Your task to perform on an android device: Open the calendar and show me this week's events? Image 0: 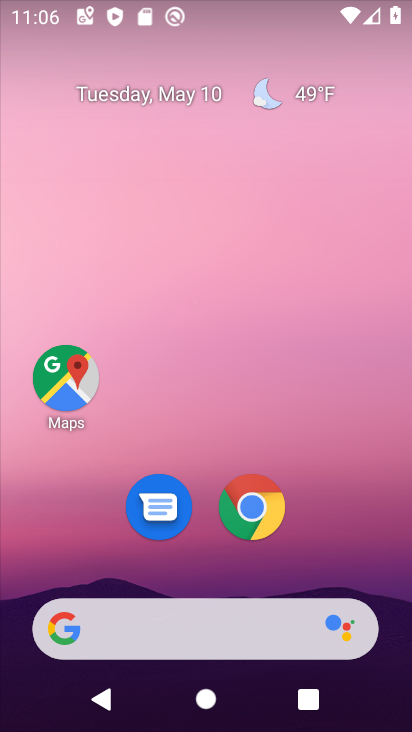
Step 0: drag from (202, 556) to (210, 120)
Your task to perform on an android device: Open the calendar and show me this week's events? Image 1: 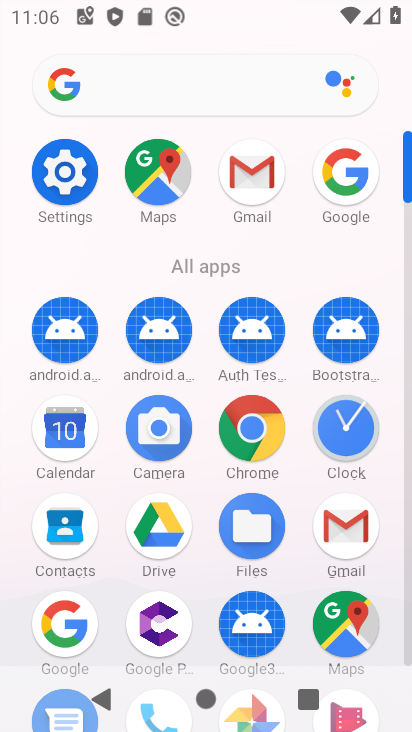
Step 1: click (63, 431)
Your task to perform on an android device: Open the calendar and show me this week's events? Image 2: 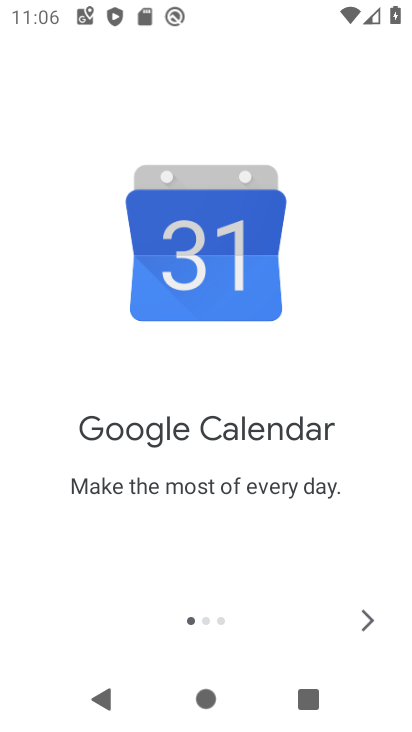
Step 2: click (365, 616)
Your task to perform on an android device: Open the calendar and show me this week's events? Image 3: 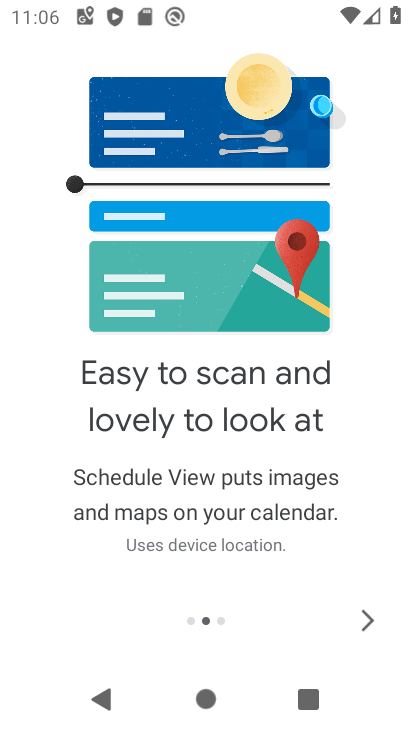
Step 3: click (365, 616)
Your task to perform on an android device: Open the calendar and show me this week's events? Image 4: 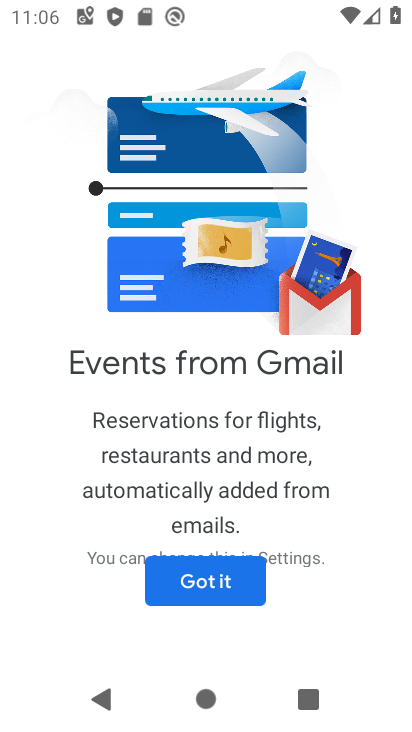
Step 4: click (195, 583)
Your task to perform on an android device: Open the calendar and show me this week's events? Image 5: 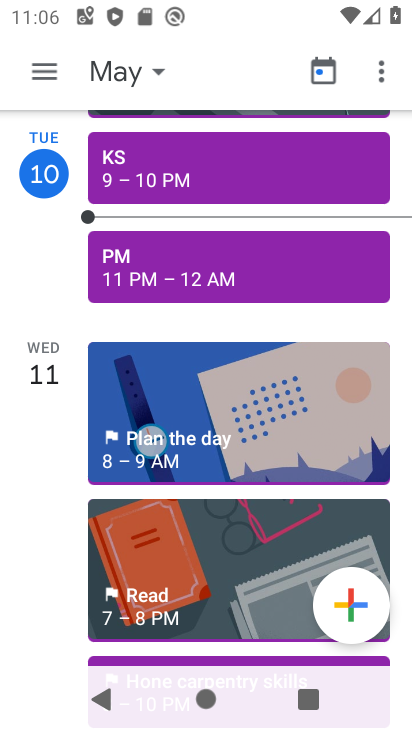
Step 5: click (144, 69)
Your task to perform on an android device: Open the calendar and show me this week's events? Image 6: 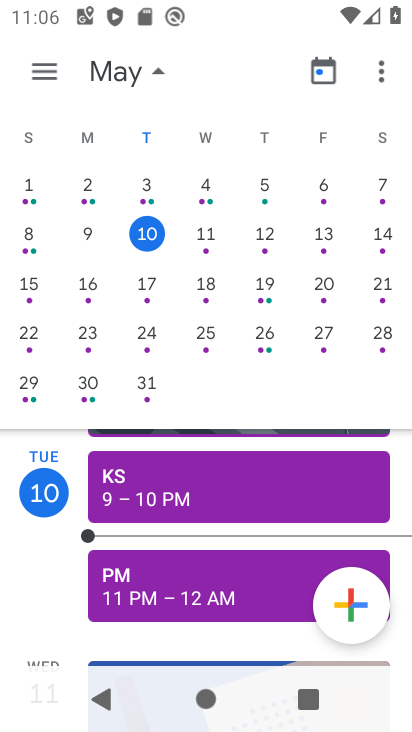
Step 6: click (270, 235)
Your task to perform on an android device: Open the calendar and show me this week's events? Image 7: 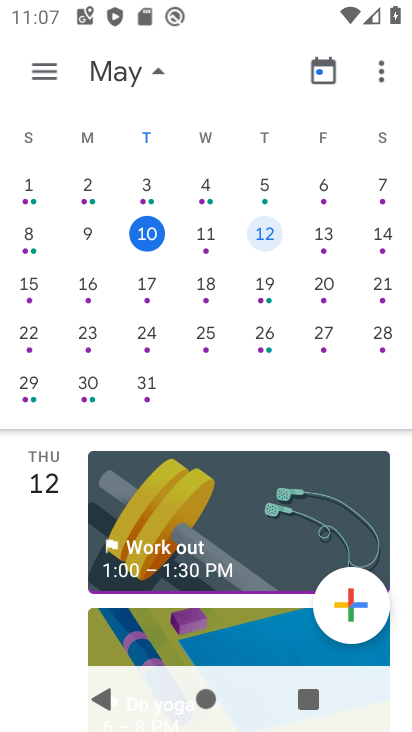
Step 7: task complete